Your task to perform on an android device: show emergency info Image 0: 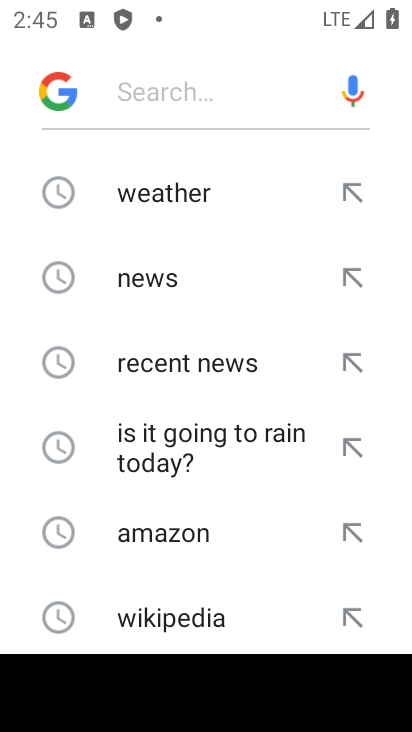
Step 0: press home button
Your task to perform on an android device: show emergency info Image 1: 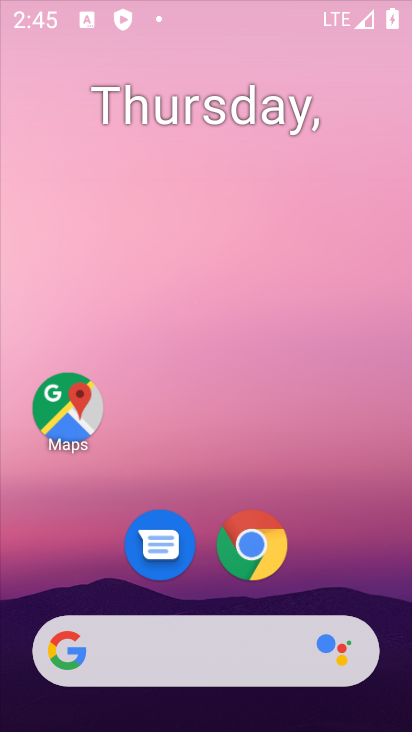
Step 1: drag from (76, 554) to (105, 85)
Your task to perform on an android device: show emergency info Image 2: 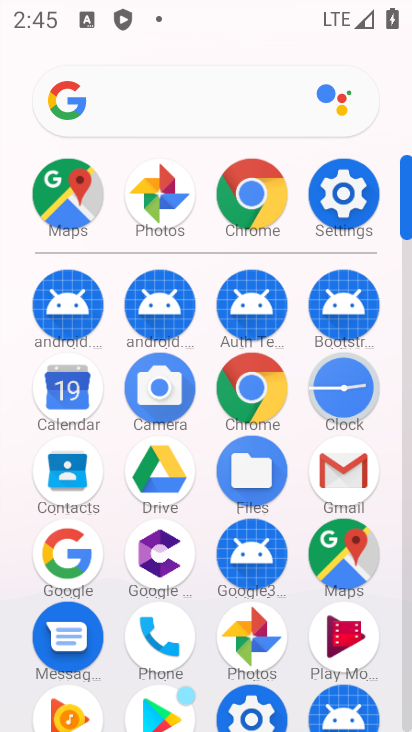
Step 2: click (339, 197)
Your task to perform on an android device: show emergency info Image 3: 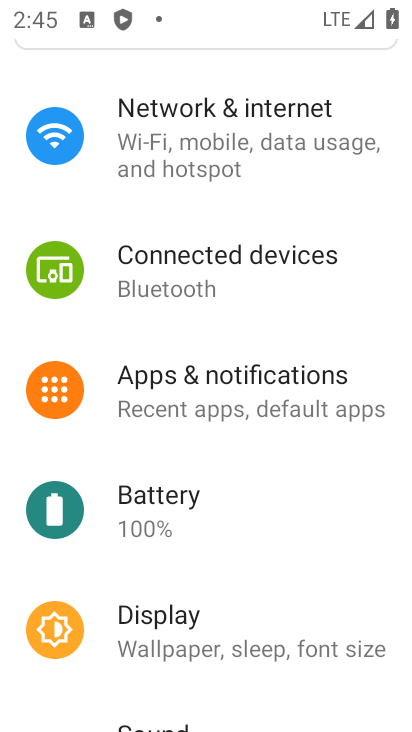
Step 3: drag from (282, 662) to (282, 167)
Your task to perform on an android device: show emergency info Image 4: 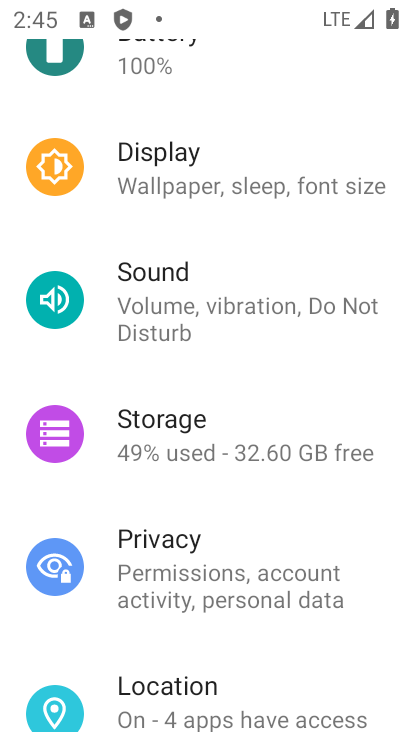
Step 4: drag from (224, 658) to (246, 159)
Your task to perform on an android device: show emergency info Image 5: 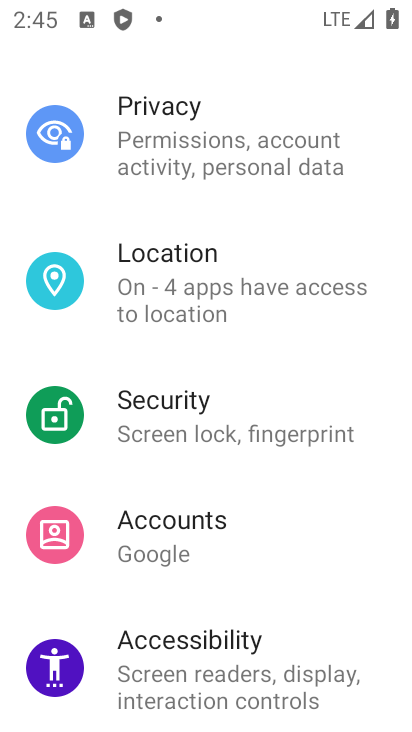
Step 5: drag from (224, 704) to (212, 135)
Your task to perform on an android device: show emergency info Image 6: 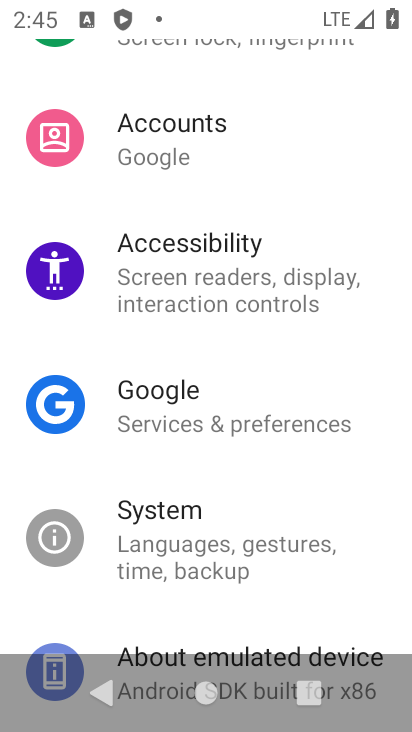
Step 6: click (247, 653)
Your task to perform on an android device: show emergency info Image 7: 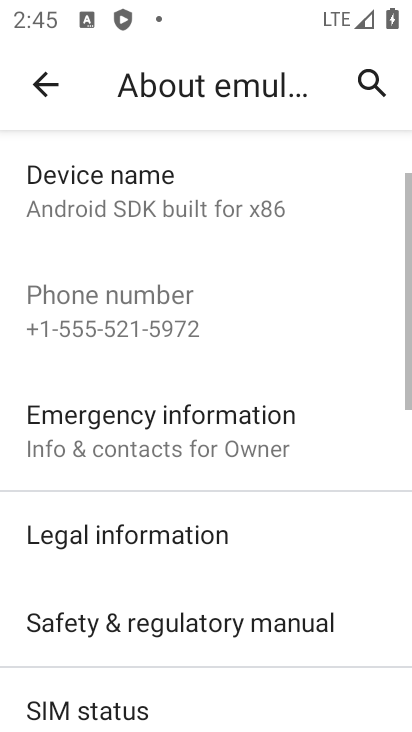
Step 7: click (261, 458)
Your task to perform on an android device: show emergency info Image 8: 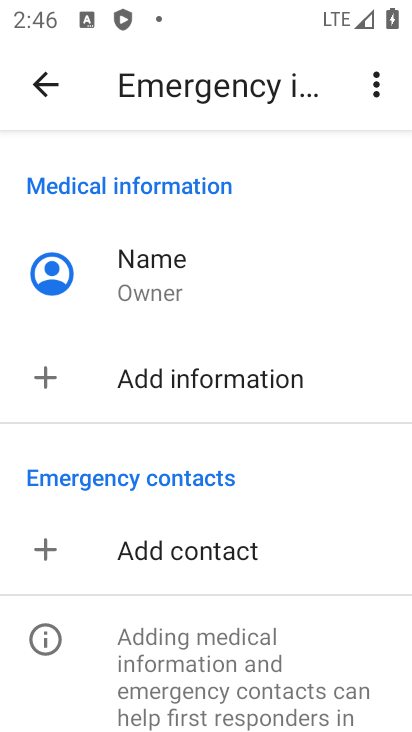
Step 8: task complete